Your task to perform on an android device: When is my next appointment? Image 0: 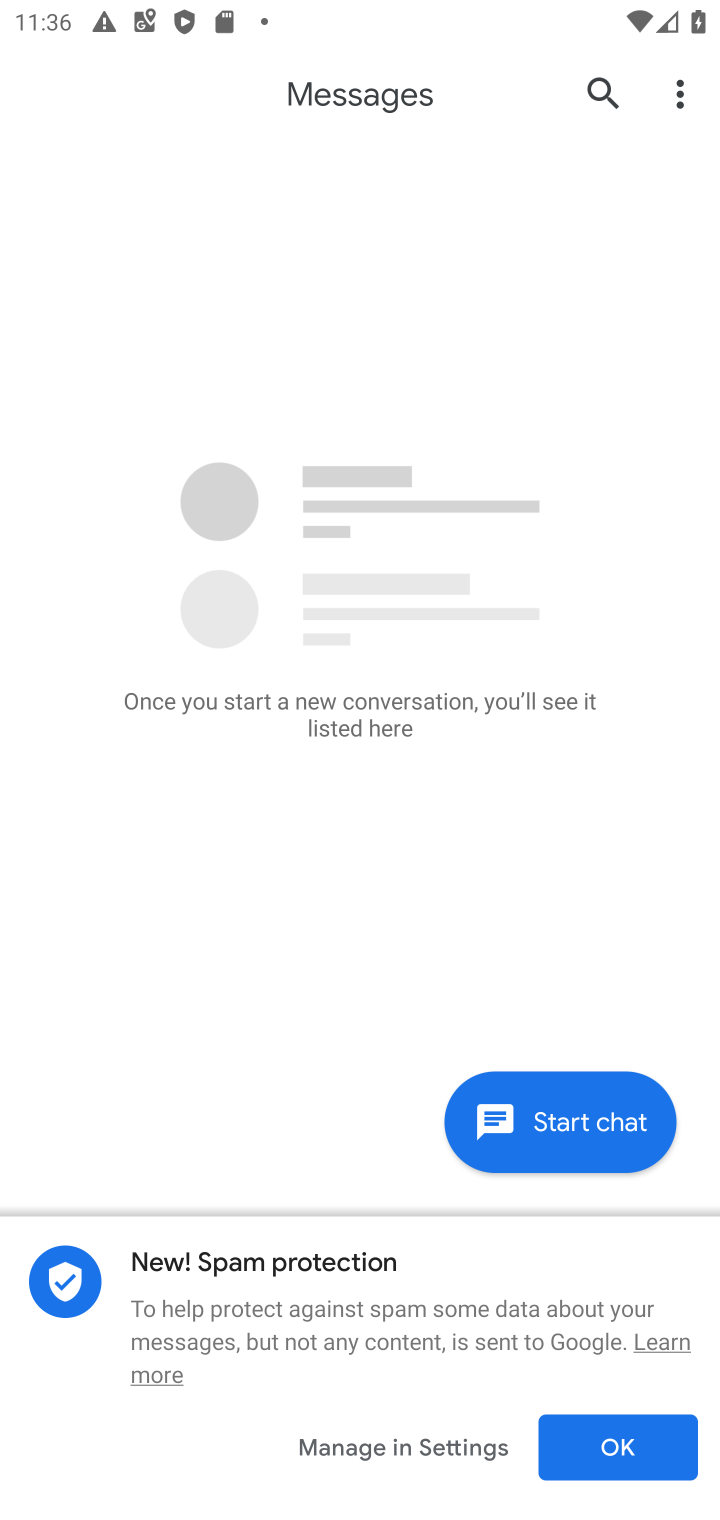
Step 0: press home button
Your task to perform on an android device: When is my next appointment? Image 1: 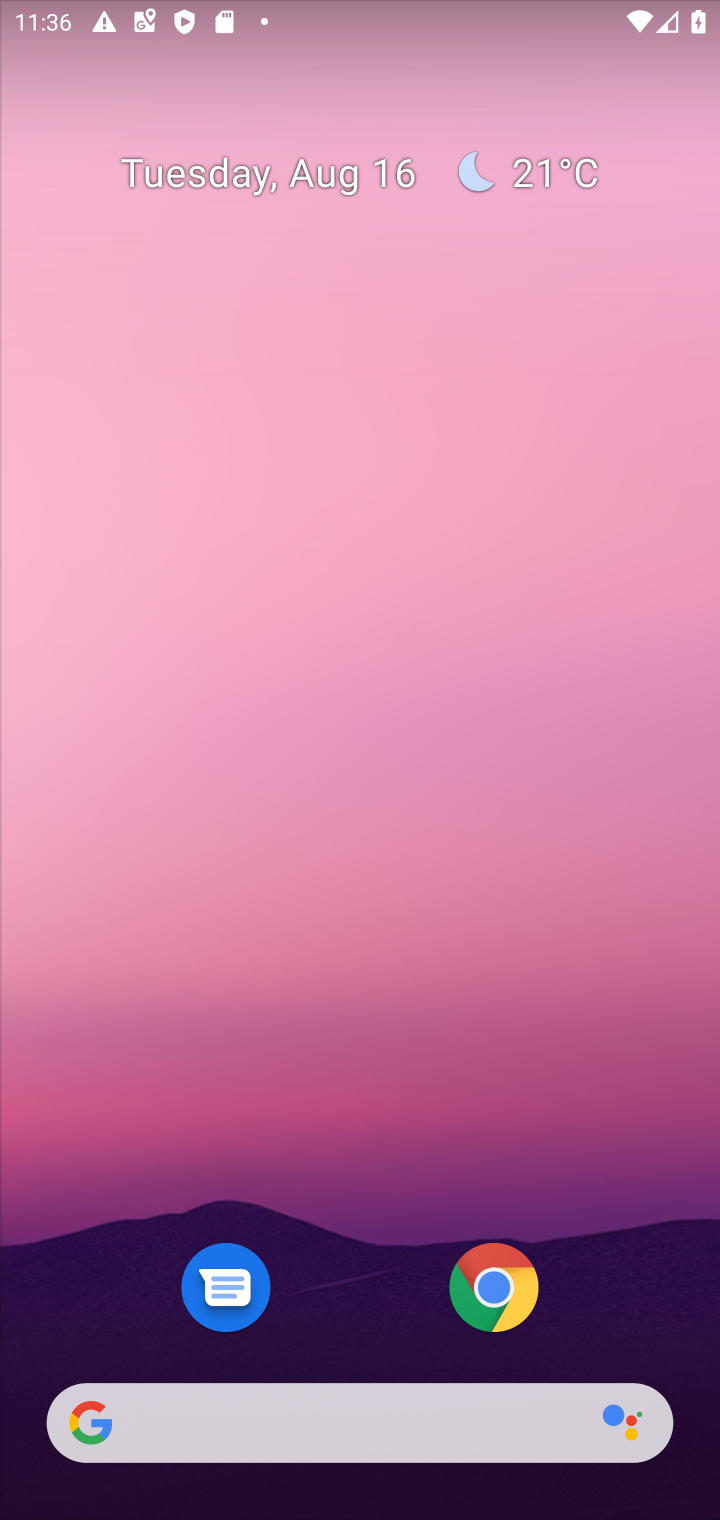
Step 1: drag from (671, 1324) to (507, 308)
Your task to perform on an android device: When is my next appointment? Image 2: 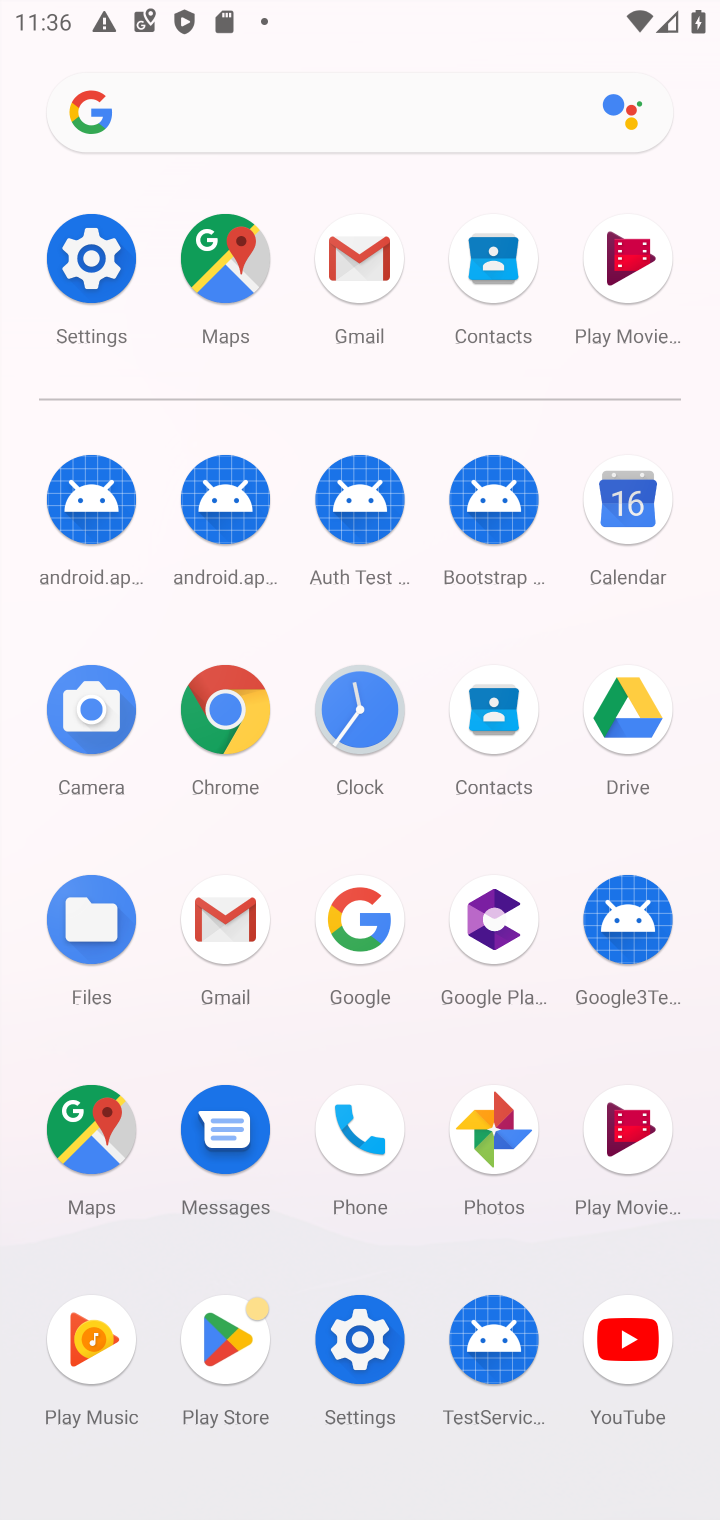
Step 2: click (627, 504)
Your task to perform on an android device: When is my next appointment? Image 3: 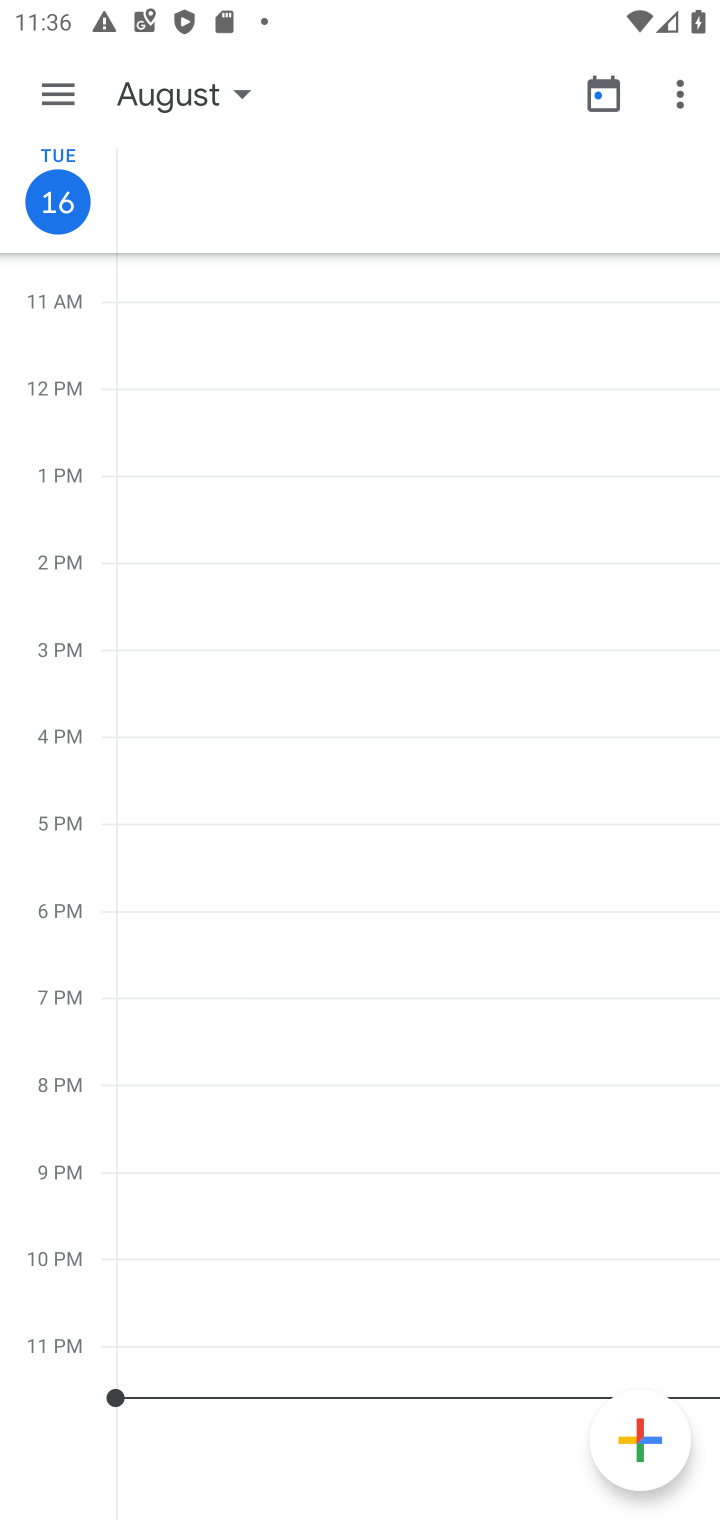
Step 3: drag from (531, 464) to (513, 864)
Your task to perform on an android device: When is my next appointment? Image 4: 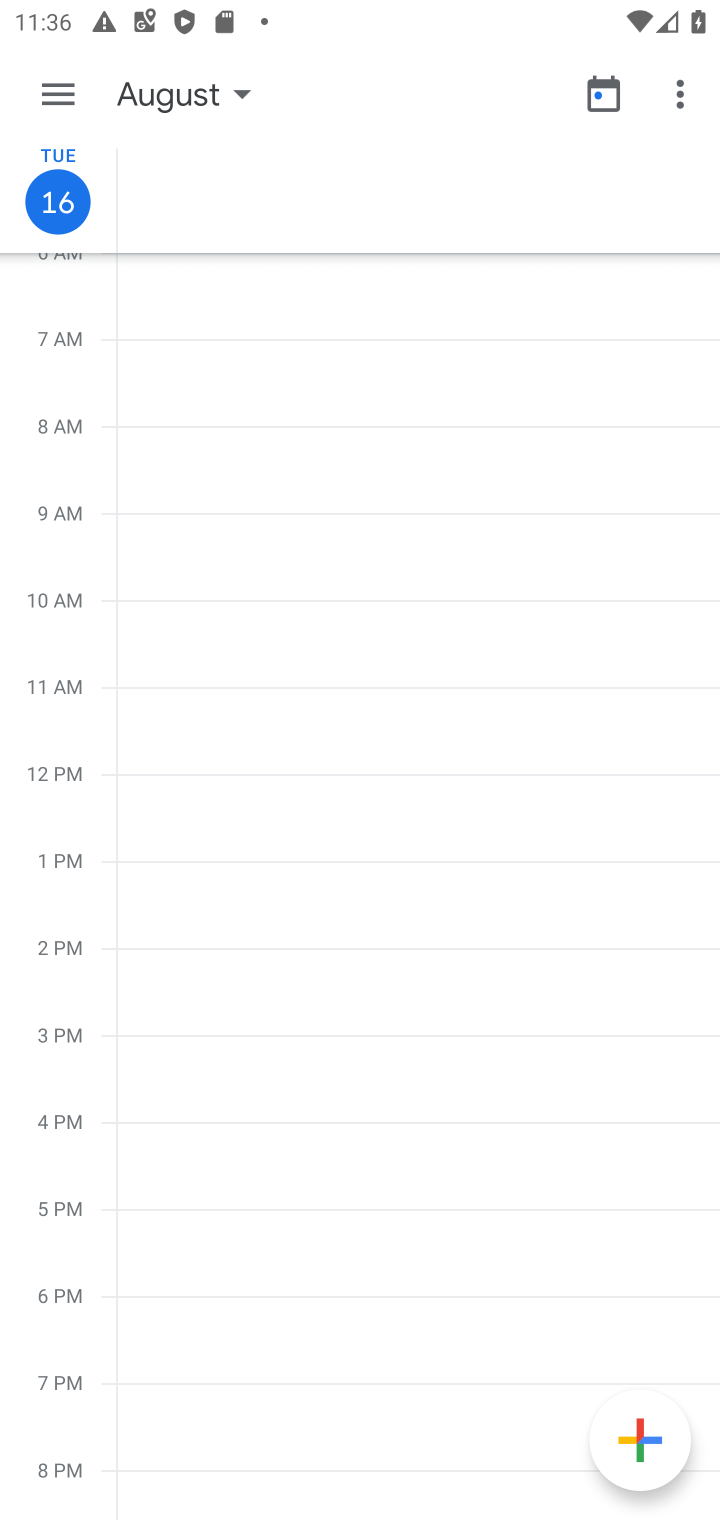
Step 4: click (63, 91)
Your task to perform on an android device: When is my next appointment? Image 5: 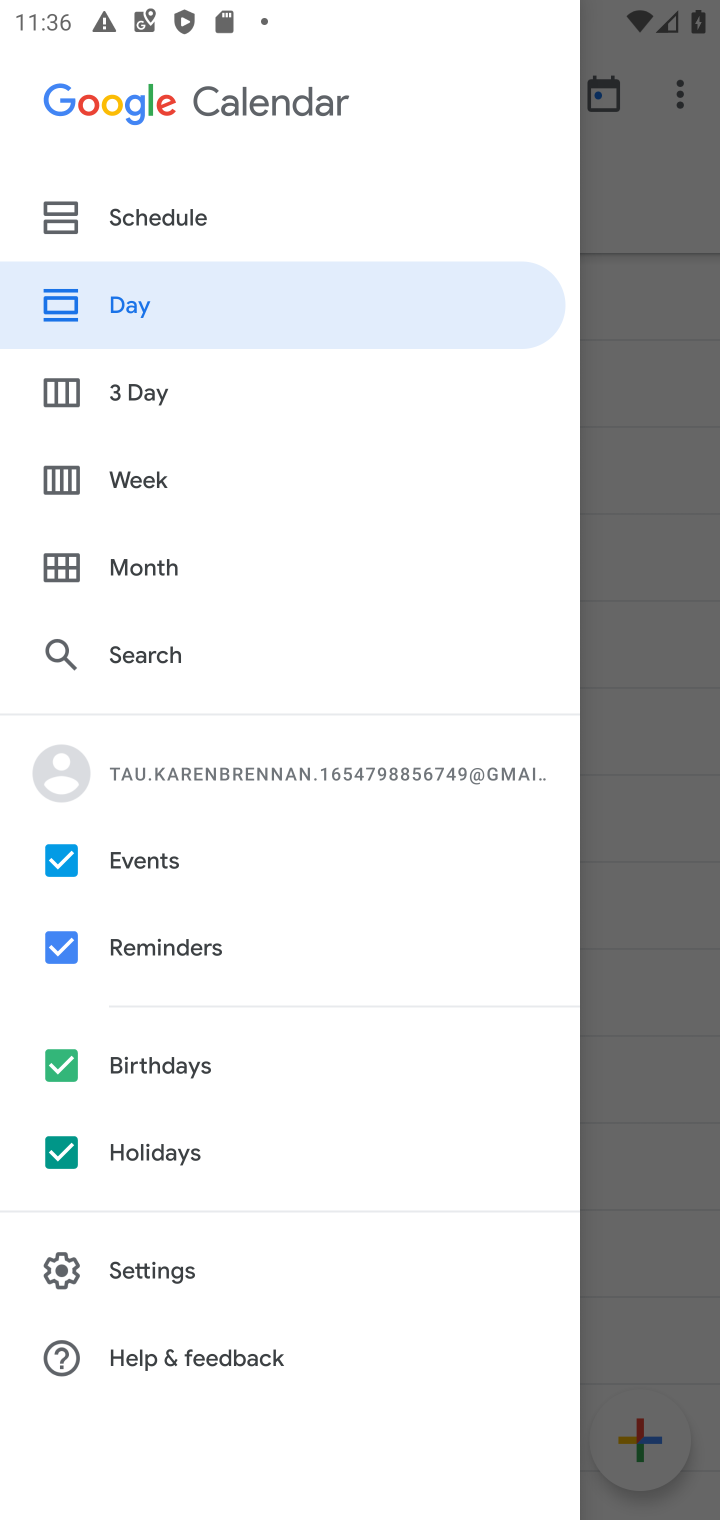
Step 5: click (165, 217)
Your task to perform on an android device: When is my next appointment? Image 6: 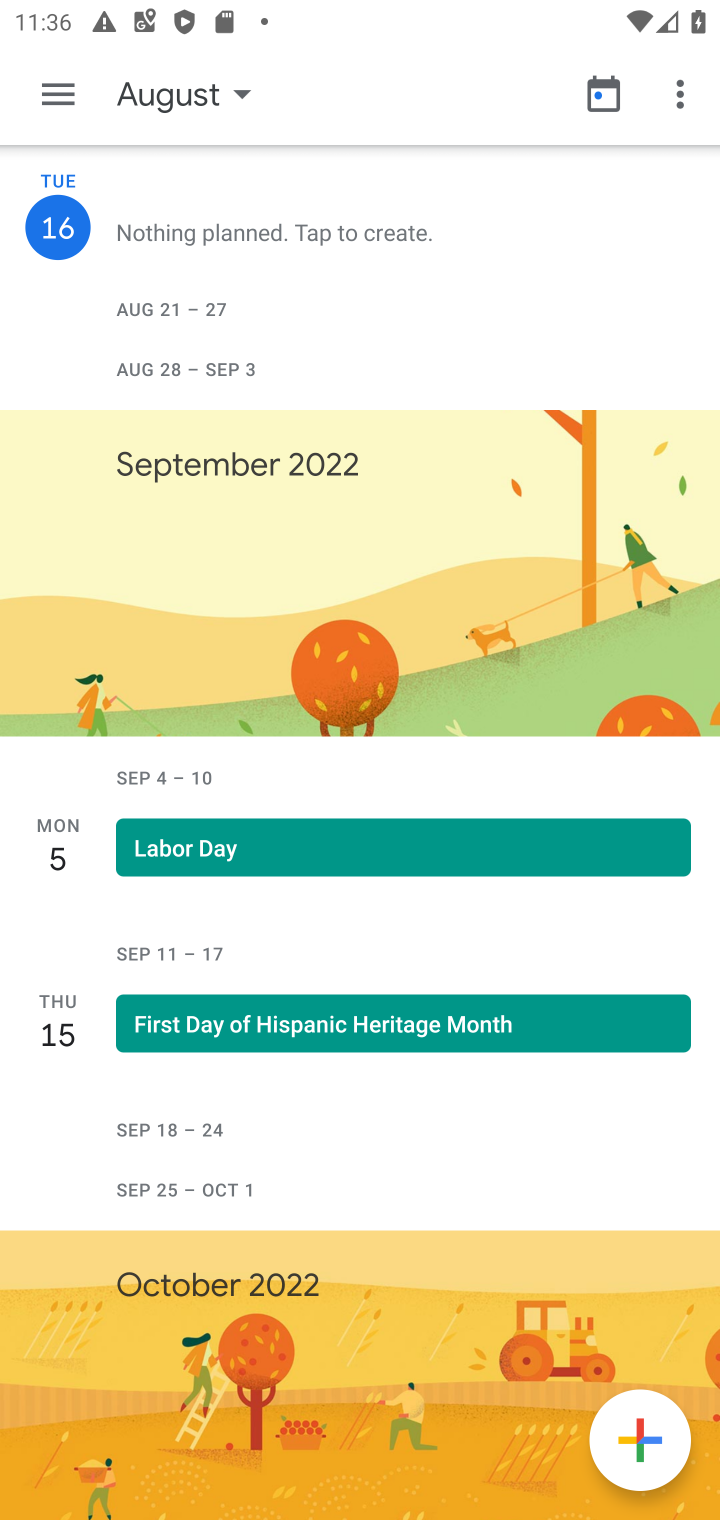
Step 6: task complete